Your task to perform on an android device: check android version Image 0: 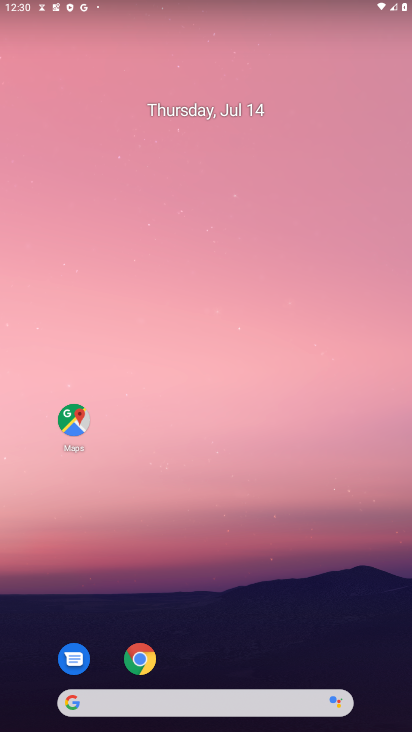
Step 0: drag from (13, 678) to (269, 36)
Your task to perform on an android device: check android version Image 1: 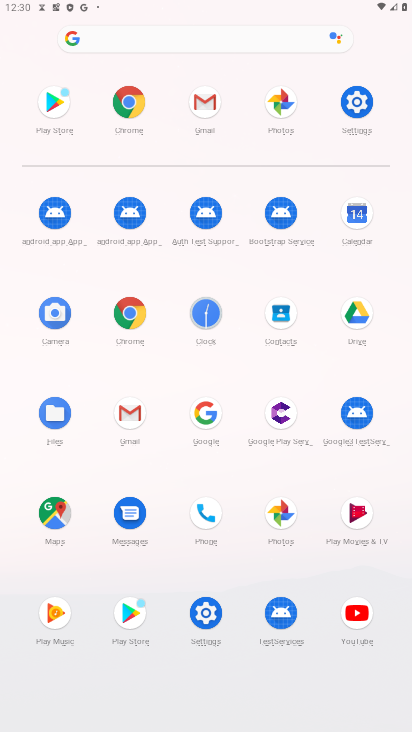
Step 1: click (187, 622)
Your task to perform on an android device: check android version Image 2: 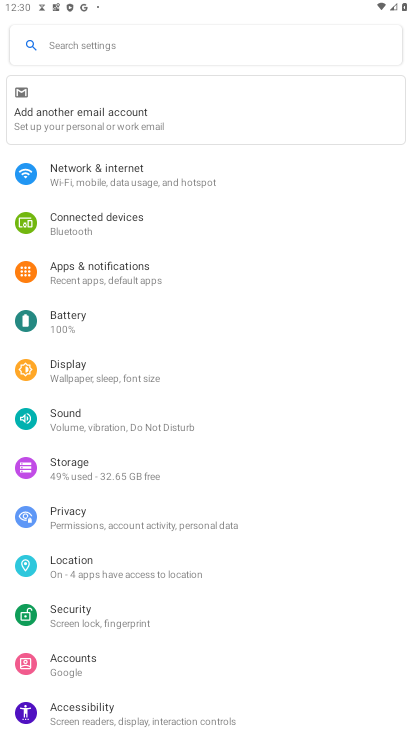
Step 2: drag from (194, 688) to (233, 276)
Your task to perform on an android device: check android version Image 3: 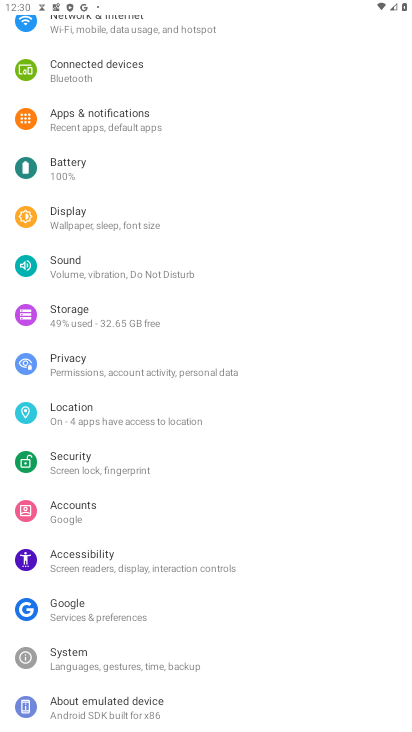
Step 3: click (101, 705)
Your task to perform on an android device: check android version Image 4: 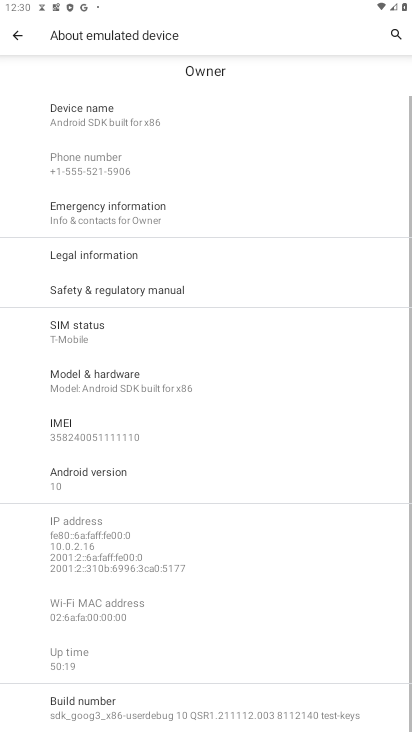
Step 4: click (105, 476)
Your task to perform on an android device: check android version Image 5: 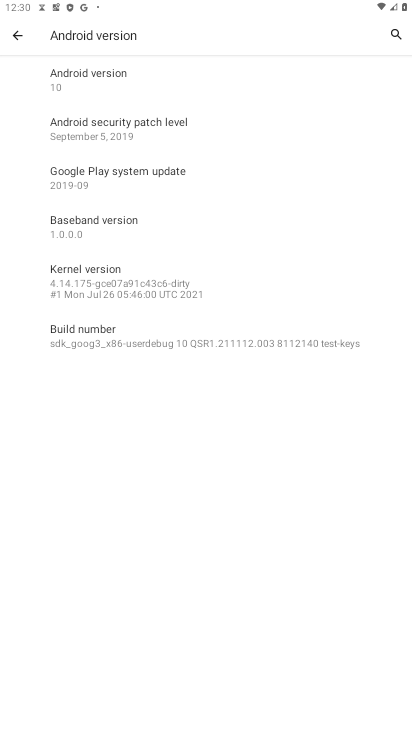
Step 5: task complete